Your task to perform on an android device: install app "eBay: The shopping marketplace" Image 0: 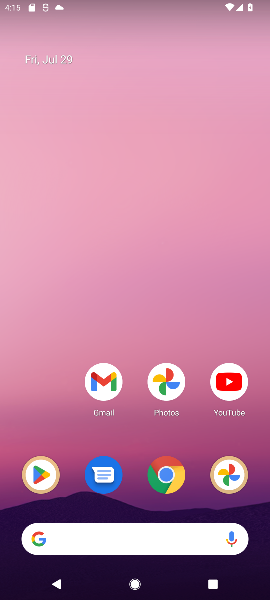
Step 0: click (36, 470)
Your task to perform on an android device: install app "eBay: The shopping marketplace" Image 1: 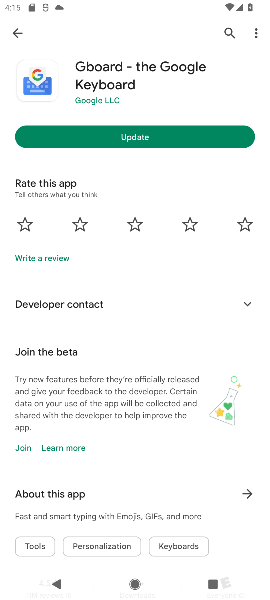
Step 1: click (25, 34)
Your task to perform on an android device: install app "eBay: The shopping marketplace" Image 2: 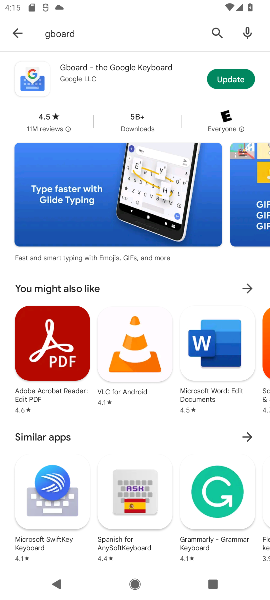
Step 2: click (13, 32)
Your task to perform on an android device: install app "eBay: The shopping marketplace" Image 3: 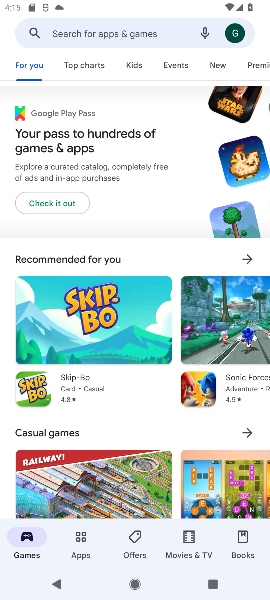
Step 3: click (73, 29)
Your task to perform on an android device: install app "eBay: The shopping marketplace" Image 4: 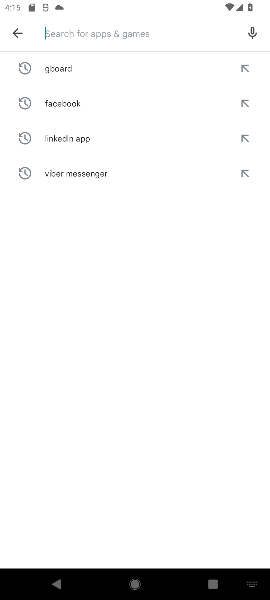
Step 4: type "eBay: The shopping marketplace"
Your task to perform on an android device: install app "eBay: The shopping marketplace" Image 5: 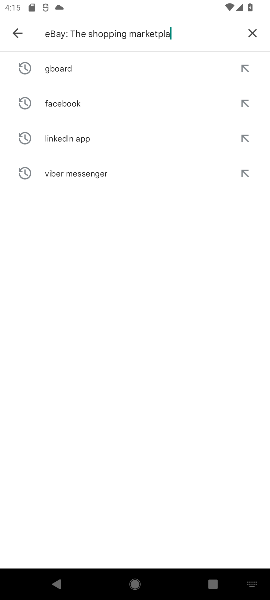
Step 5: type ""
Your task to perform on an android device: install app "eBay: The shopping marketplace" Image 6: 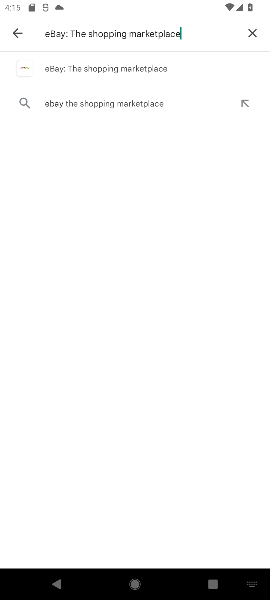
Step 6: click (101, 63)
Your task to perform on an android device: install app "eBay: The shopping marketplace" Image 7: 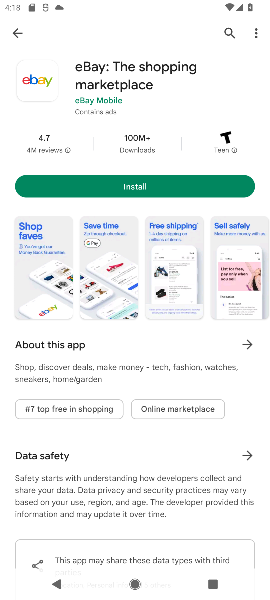
Step 7: click (122, 186)
Your task to perform on an android device: install app "eBay: The shopping marketplace" Image 8: 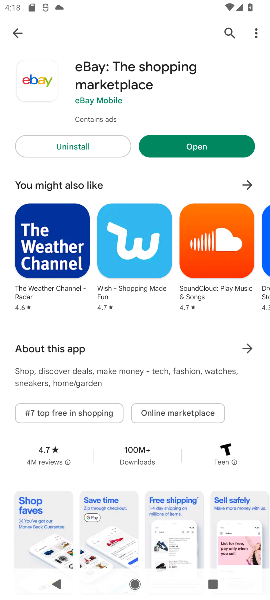
Step 8: task complete